Your task to perform on an android device: Open Reddit.com Image 0: 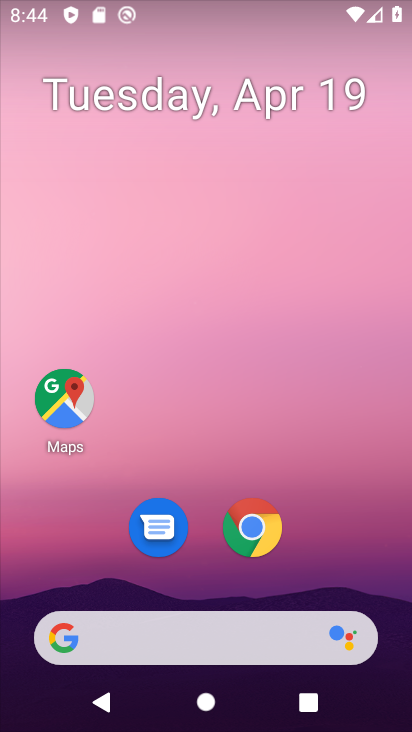
Step 0: drag from (303, 415) to (273, 127)
Your task to perform on an android device: Open Reddit.com Image 1: 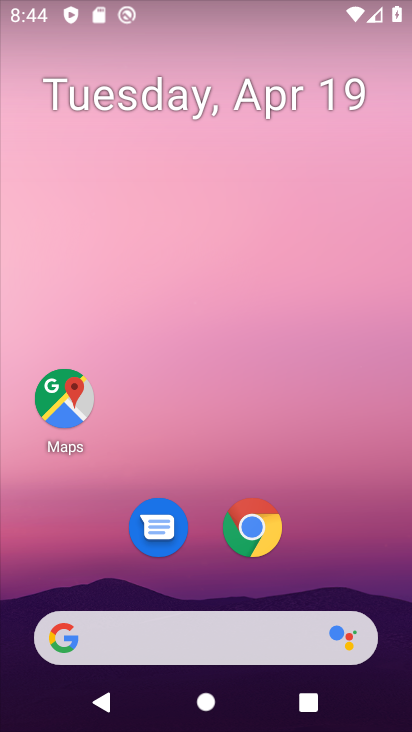
Step 1: drag from (323, 483) to (301, 143)
Your task to perform on an android device: Open Reddit.com Image 2: 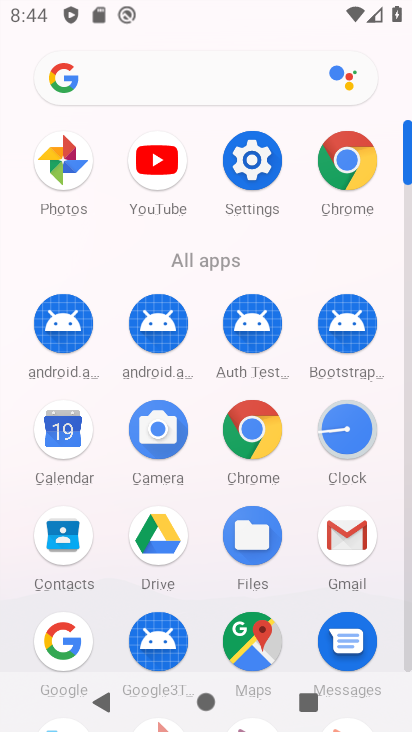
Step 2: click (259, 410)
Your task to perform on an android device: Open Reddit.com Image 3: 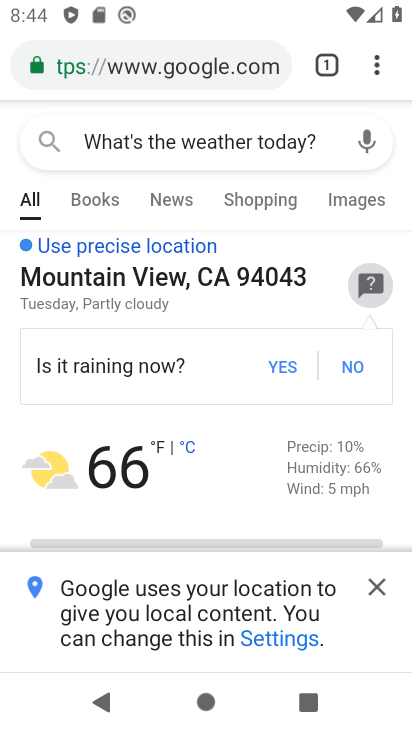
Step 3: click (370, 73)
Your task to perform on an android device: Open Reddit.com Image 4: 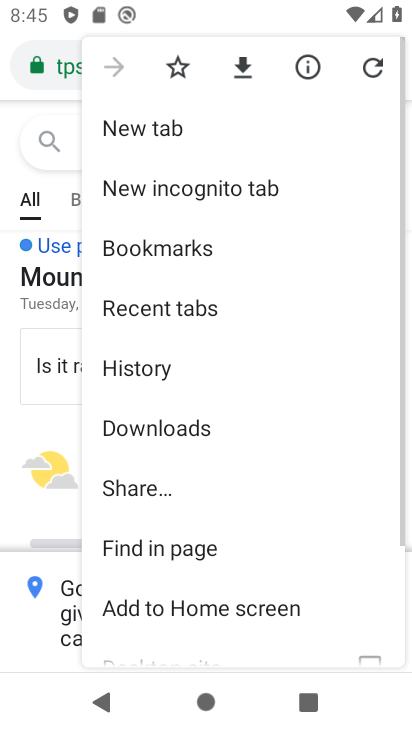
Step 4: click (225, 138)
Your task to perform on an android device: Open Reddit.com Image 5: 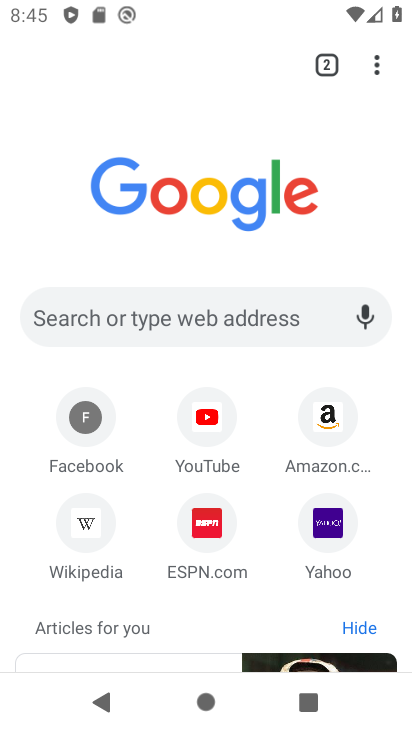
Step 5: click (234, 316)
Your task to perform on an android device: Open Reddit.com Image 6: 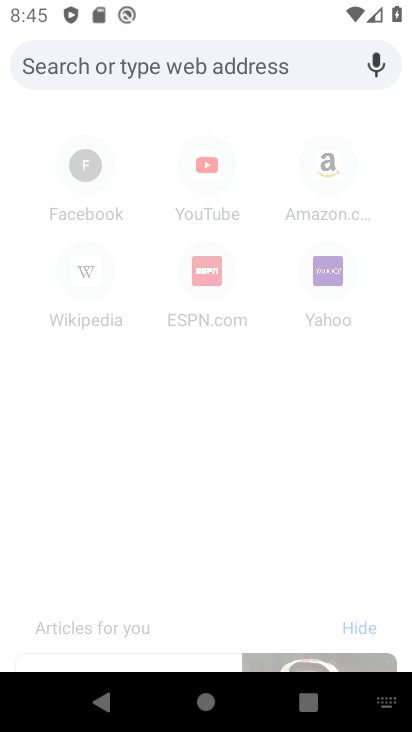
Step 6: type "Reddit.com"
Your task to perform on an android device: Open Reddit.com Image 7: 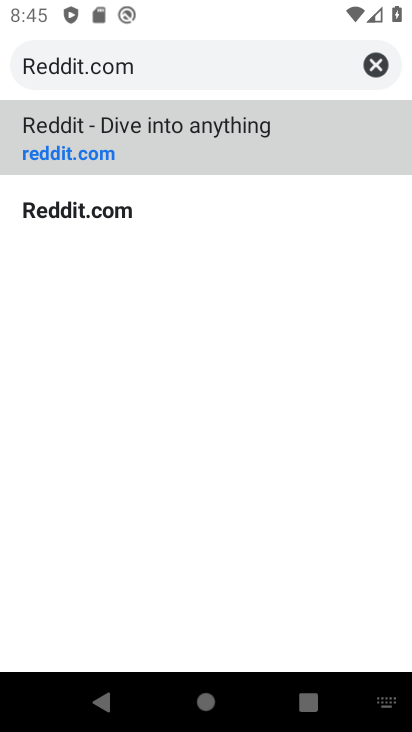
Step 7: click (123, 150)
Your task to perform on an android device: Open Reddit.com Image 8: 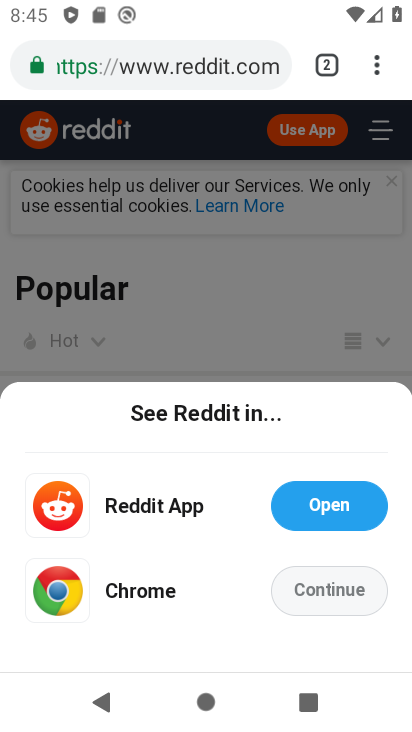
Step 8: task complete